Your task to perform on an android device: Open network settings Image 0: 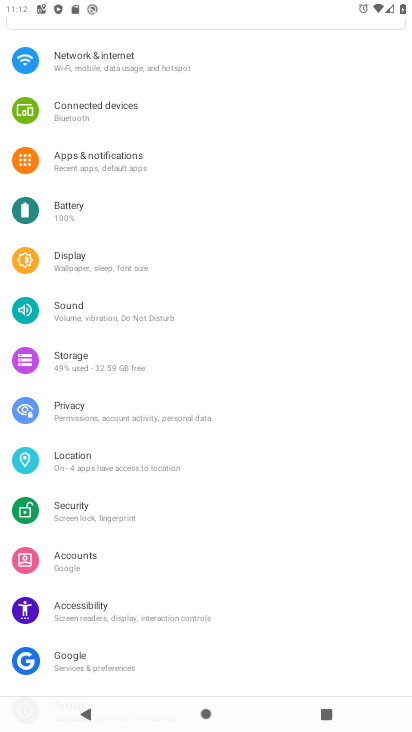
Step 0: click (82, 71)
Your task to perform on an android device: Open network settings Image 1: 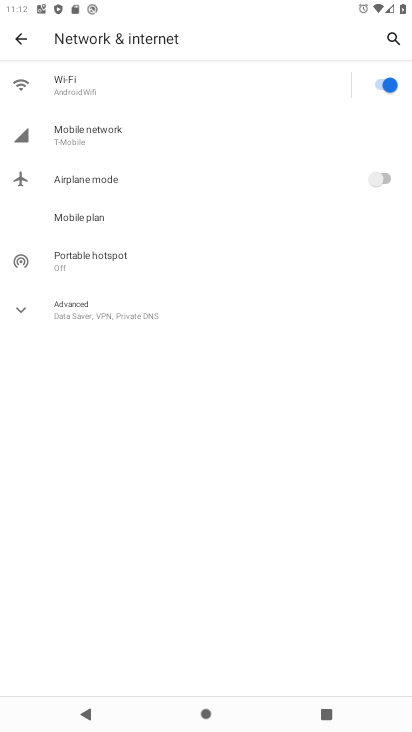
Step 1: click (81, 130)
Your task to perform on an android device: Open network settings Image 2: 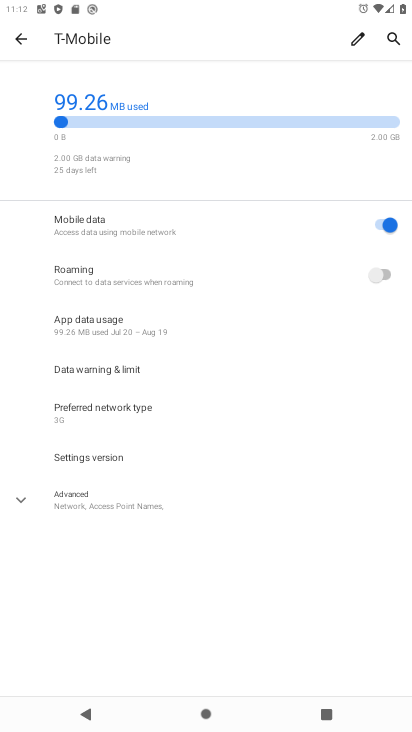
Step 2: task complete